Your task to perform on an android device: Empty the shopping cart on costco. Image 0: 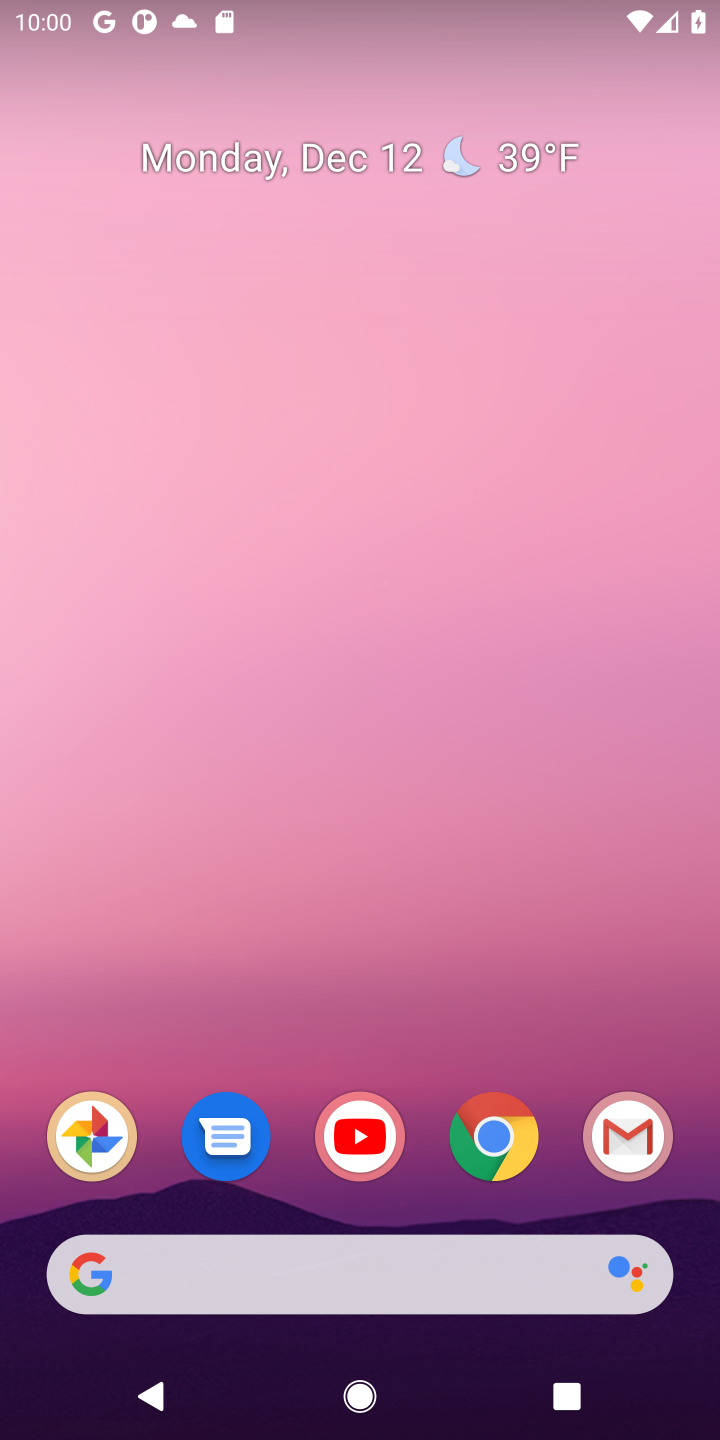
Step 0: click (487, 1143)
Your task to perform on an android device: Empty the shopping cart on costco. Image 1: 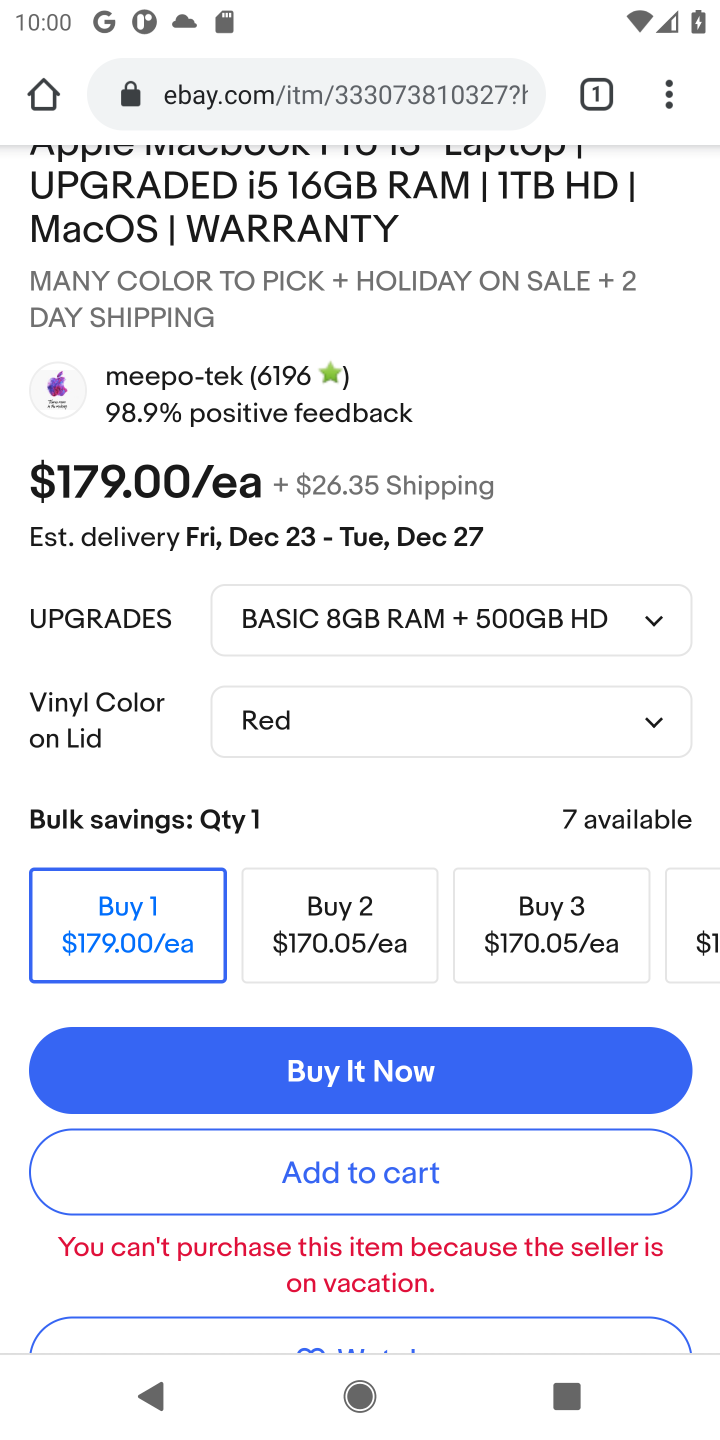
Step 1: click (279, 95)
Your task to perform on an android device: Empty the shopping cart on costco. Image 2: 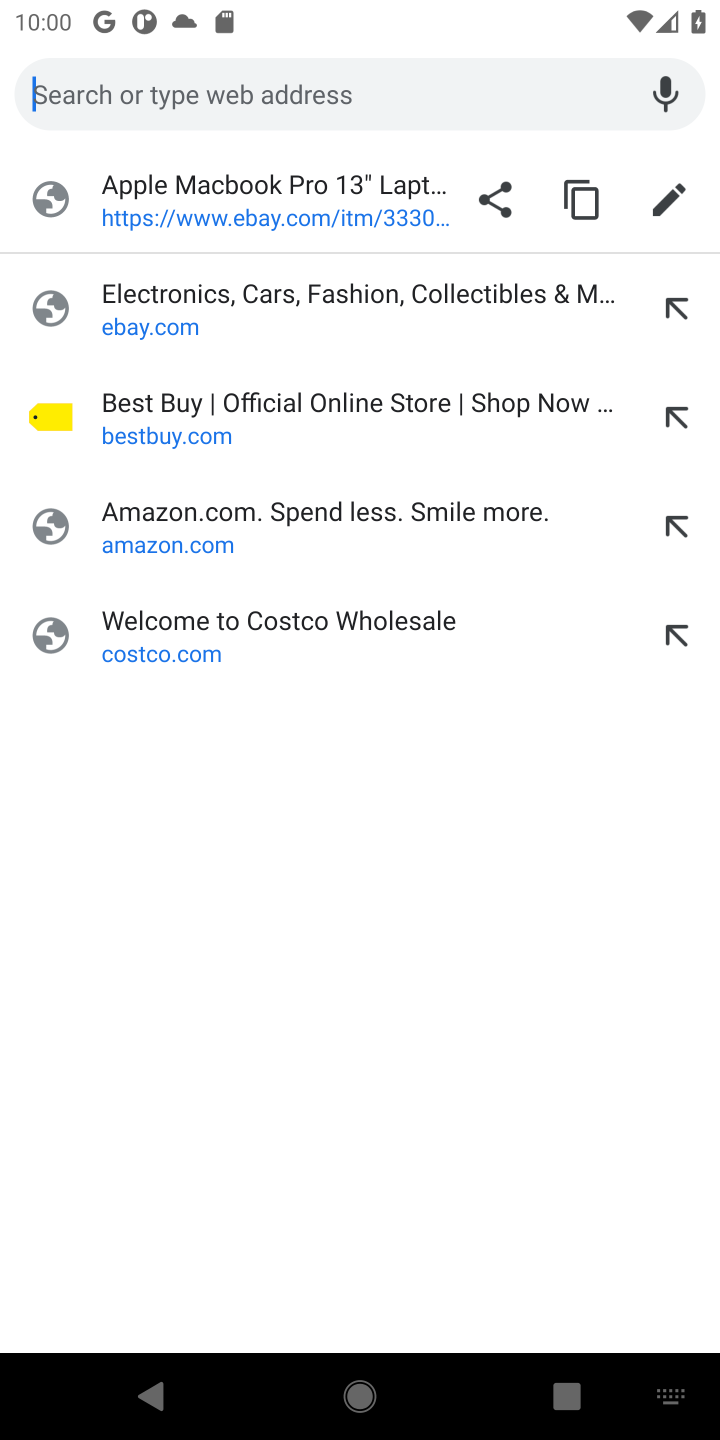
Step 2: click (121, 642)
Your task to perform on an android device: Empty the shopping cart on costco. Image 3: 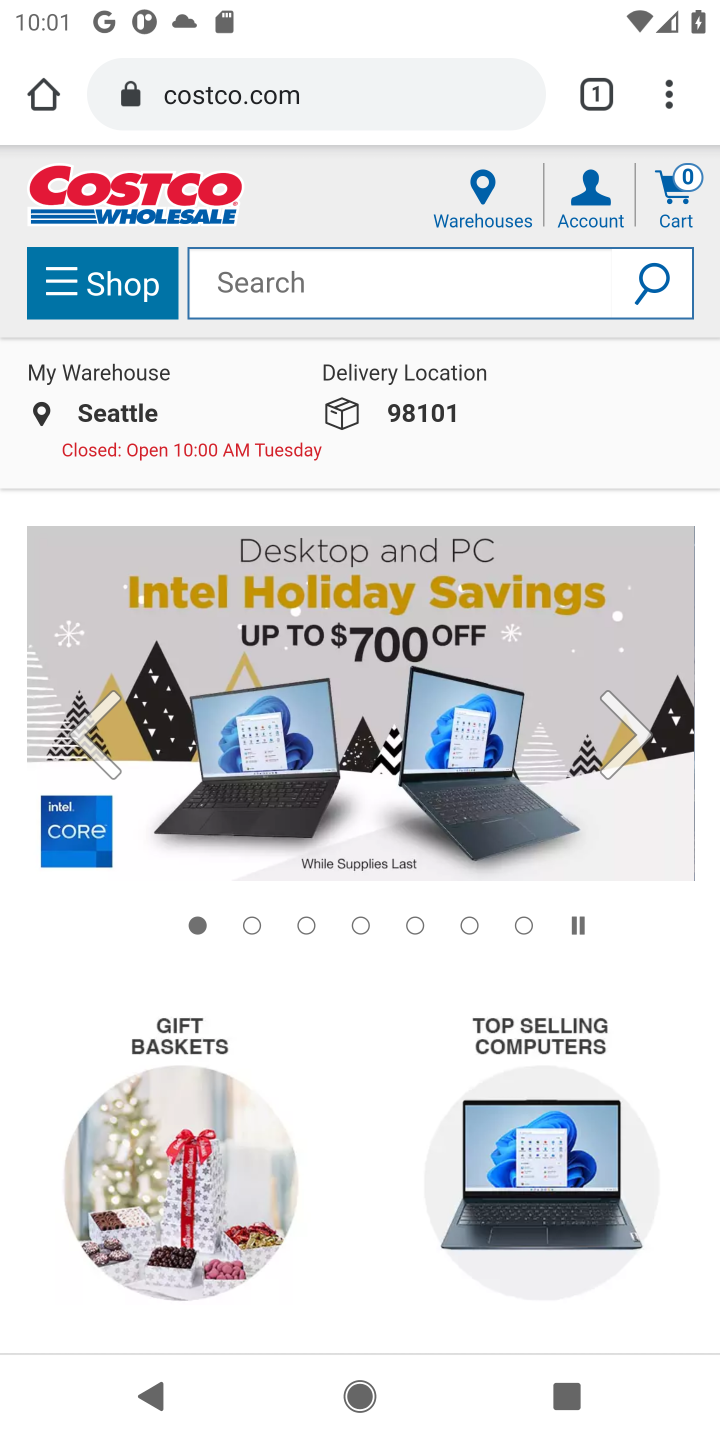
Step 3: click (677, 199)
Your task to perform on an android device: Empty the shopping cart on costco. Image 4: 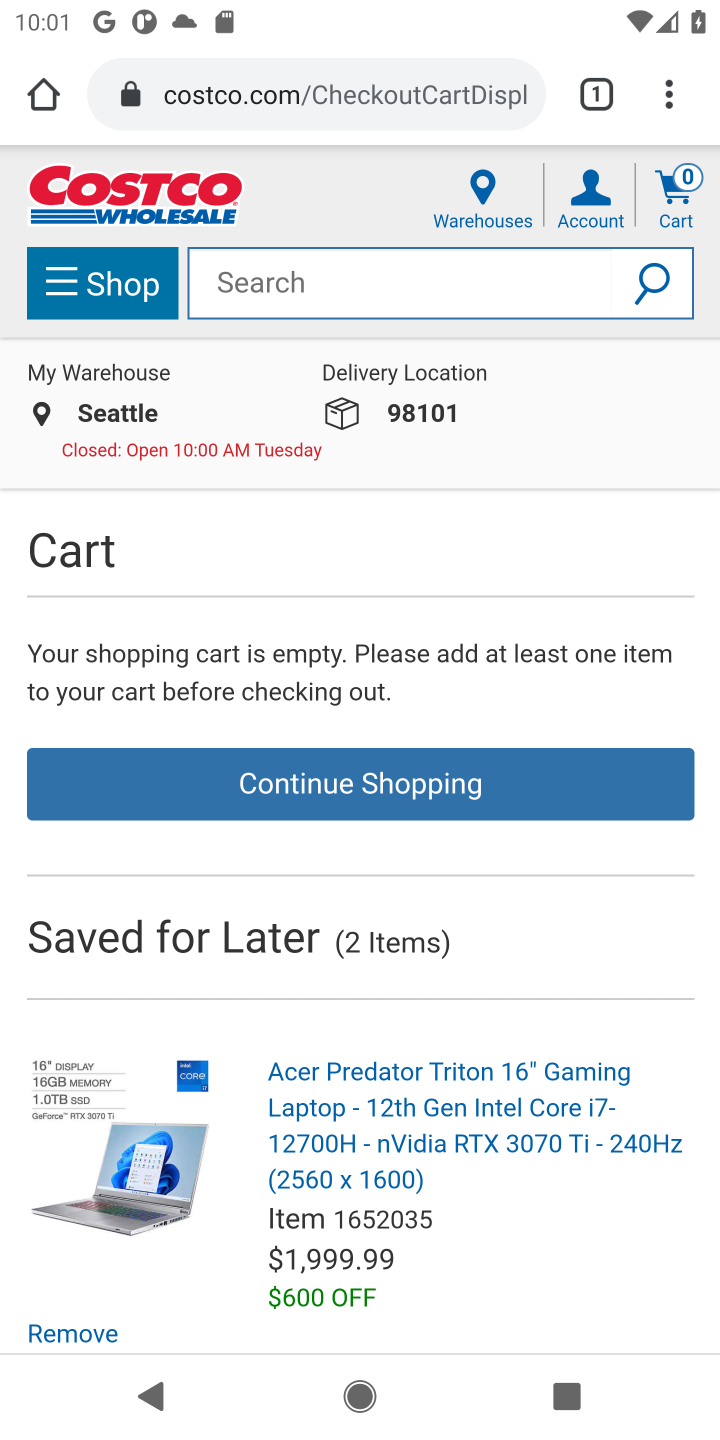
Step 4: task complete